Your task to perform on an android device: turn off wifi Image 0: 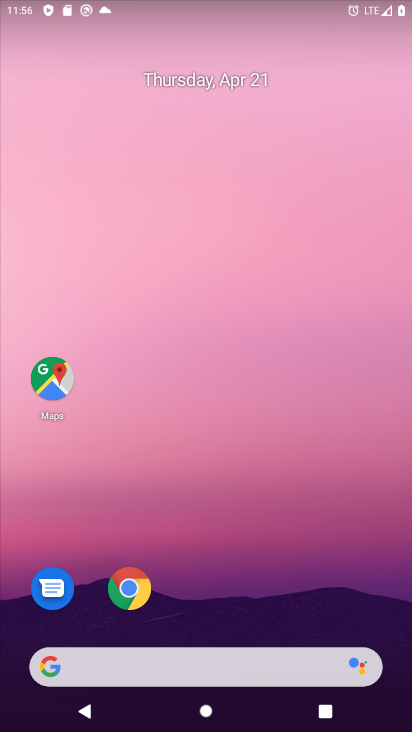
Step 0: drag from (263, 685) to (343, 70)
Your task to perform on an android device: turn off wifi Image 1: 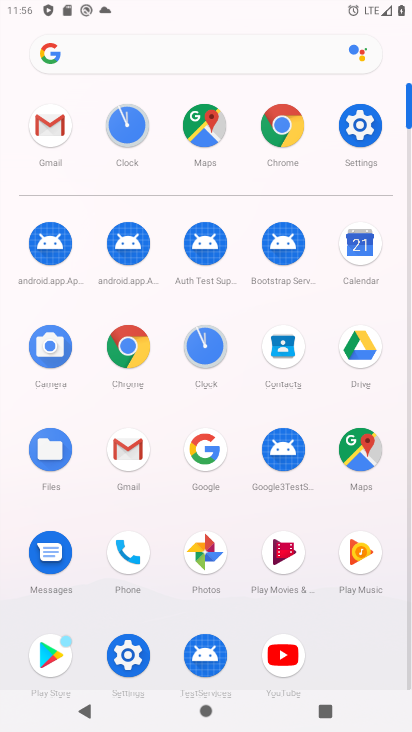
Step 1: click (359, 120)
Your task to perform on an android device: turn off wifi Image 2: 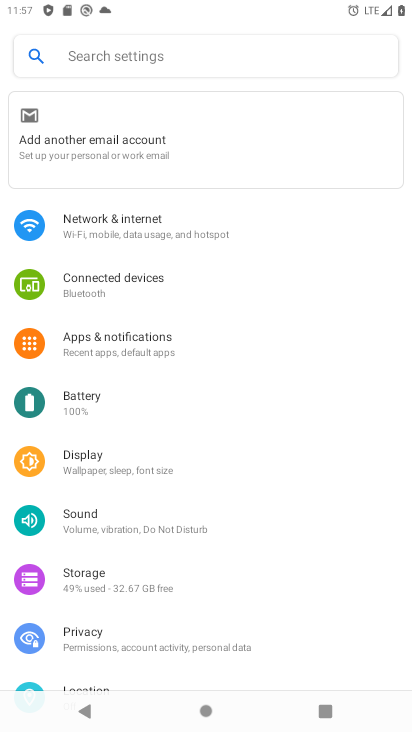
Step 2: click (183, 217)
Your task to perform on an android device: turn off wifi Image 3: 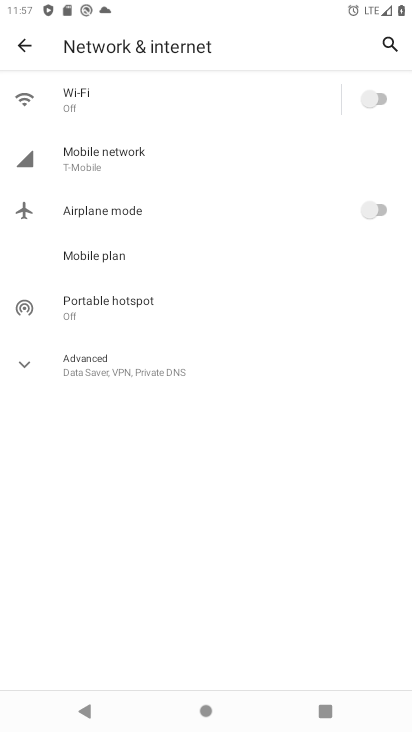
Step 3: click (199, 101)
Your task to perform on an android device: turn off wifi Image 4: 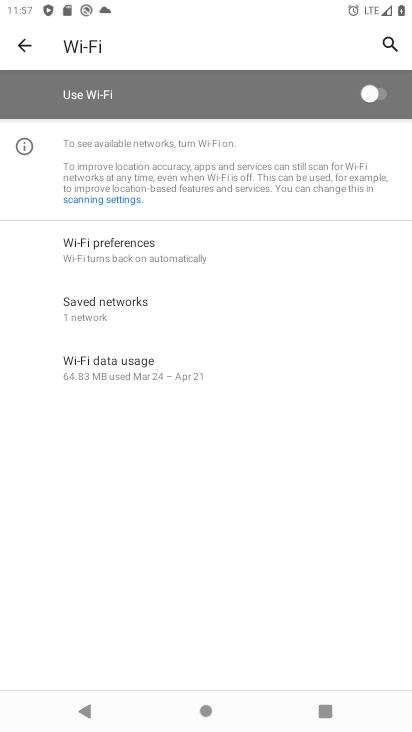
Step 4: click (370, 79)
Your task to perform on an android device: turn off wifi Image 5: 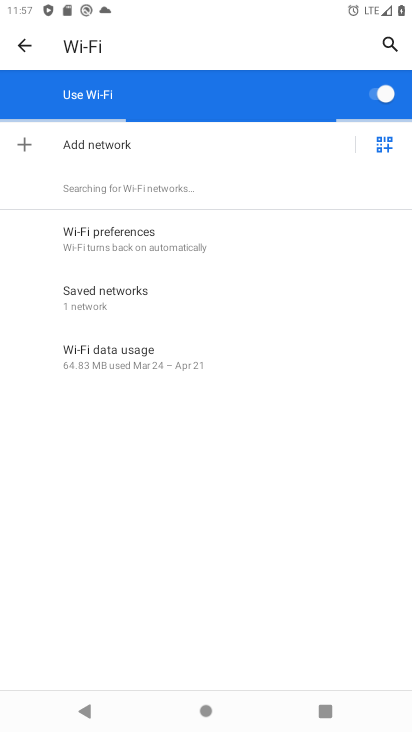
Step 5: click (370, 79)
Your task to perform on an android device: turn off wifi Image 6: 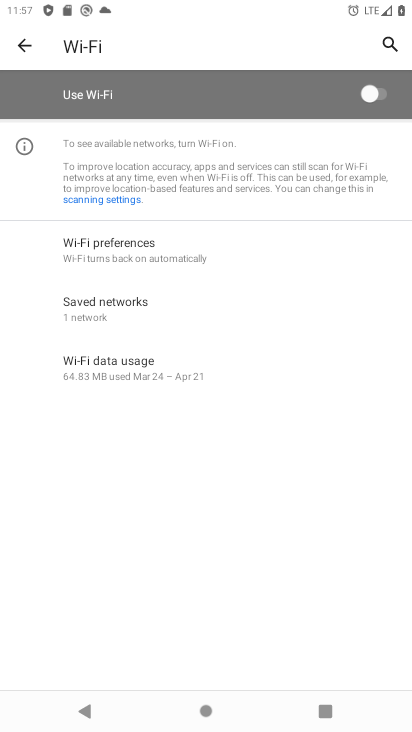
Step 6: task complete